Your task to perform on an android device: Open location settings Image 0: 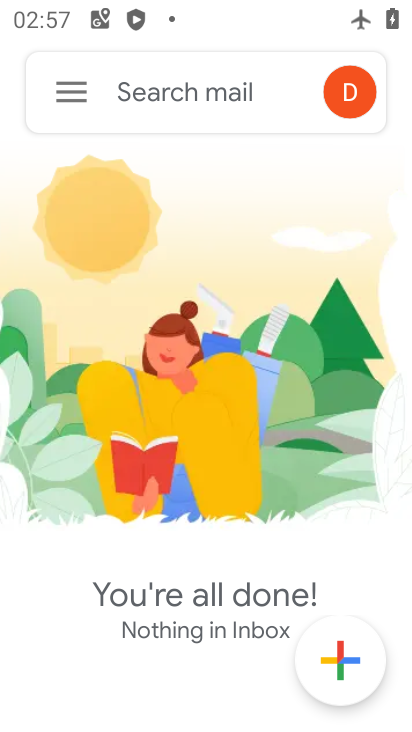
Step 0: press home button
Your task to perform on an android device: Open location settings Image 1: 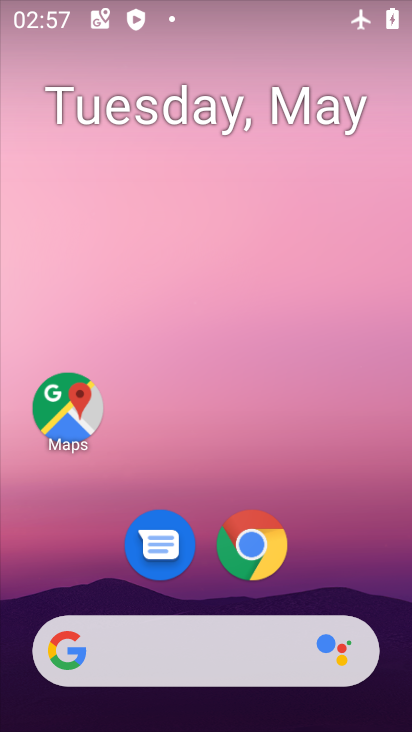
Step 1: drag from (395, 618) to (339, 202)
Your task to perform on an android device: Open location settings Image 2: 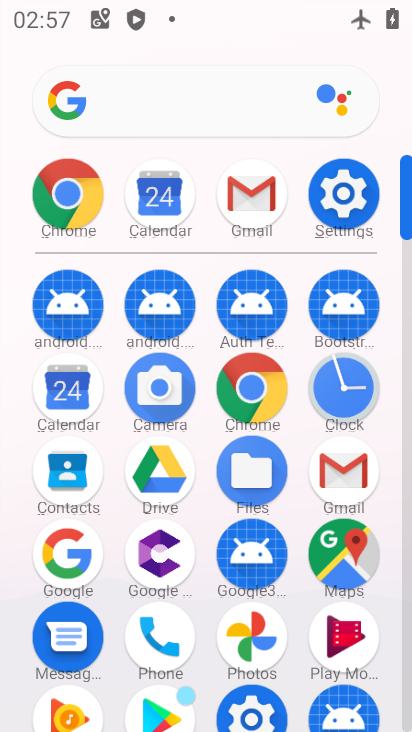
Step 2: click (402, 687)
Your task to perform on an android device: Open location settings Image 3: 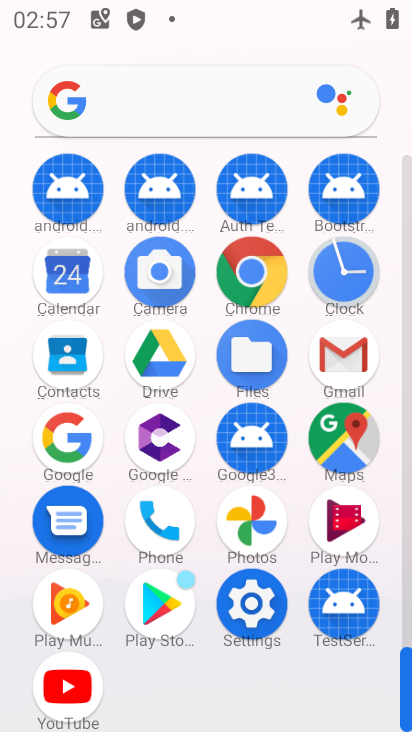
Step 3: click (251, 601)
Your task to perform on an android device: Open location settings Image 4: 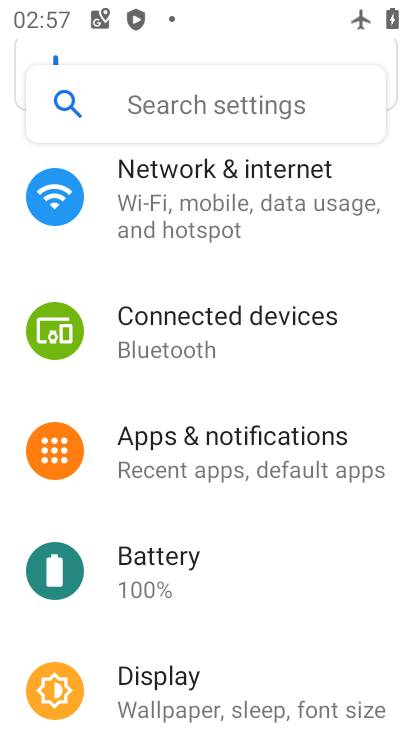
Step 4: drag from (340, 691) to (325, 244)
Your task to perform on an android device: Open location settings Image 5: 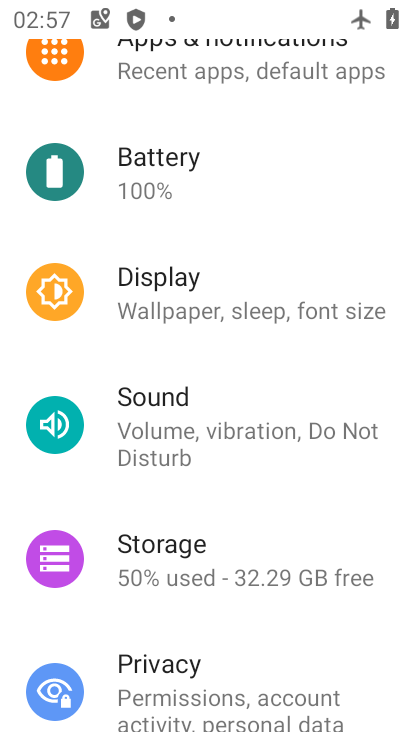
Step 5: drag from (351, 671) to (329, 396)
Your task to perform on an android device: Open location settings Image 6: 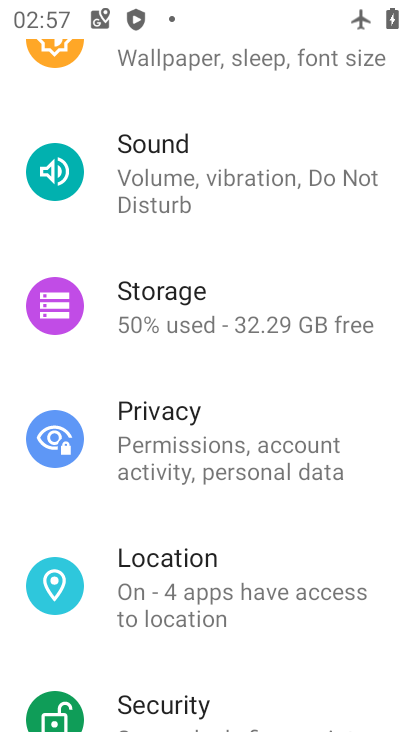
Step 6: click (171, 585)
Your task to perform on an android device: Open location settings Image 7: 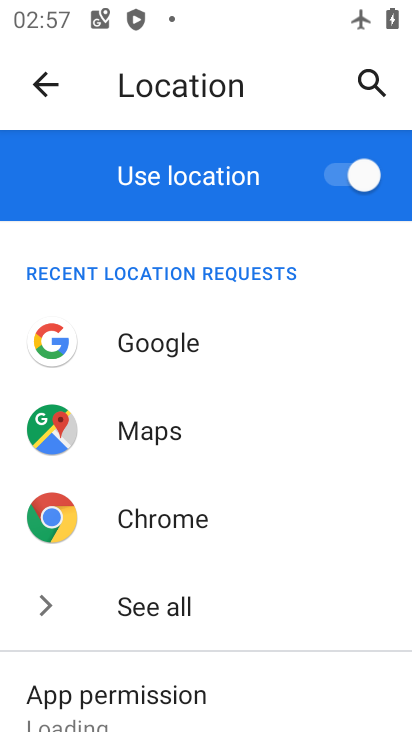
Step 7: drag from (262, 657) to (252, 449)
Your task to perform on an android device: Open location settings Image 8: 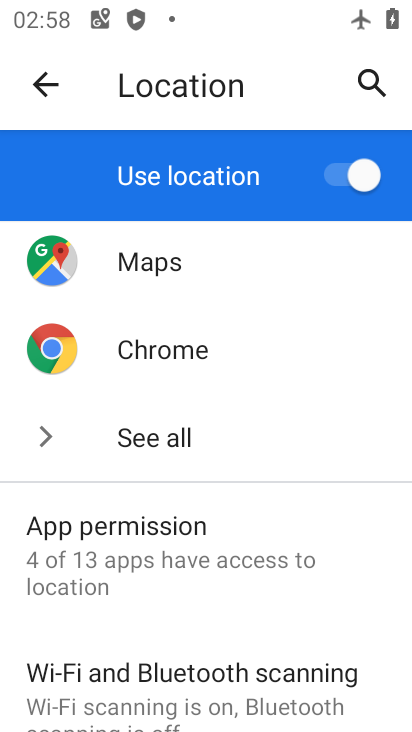
Step 8: drag from (245, 648) to (246, 262)
Your task to perform on an android device: Open location settings Image 9: 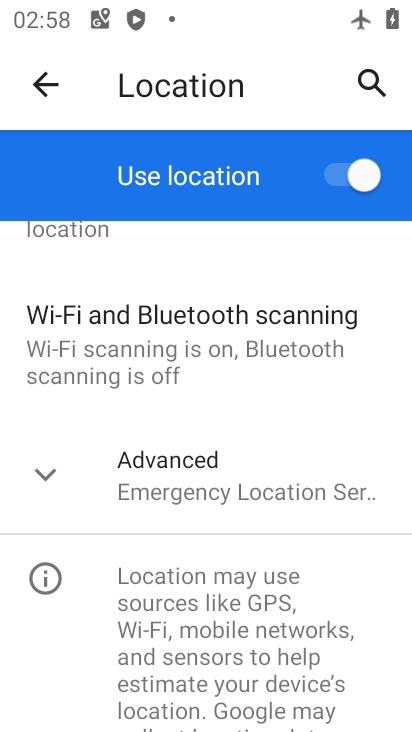
Step 9: click (37, 470)
Your task to perform on an android device: Open location settings Image 10: 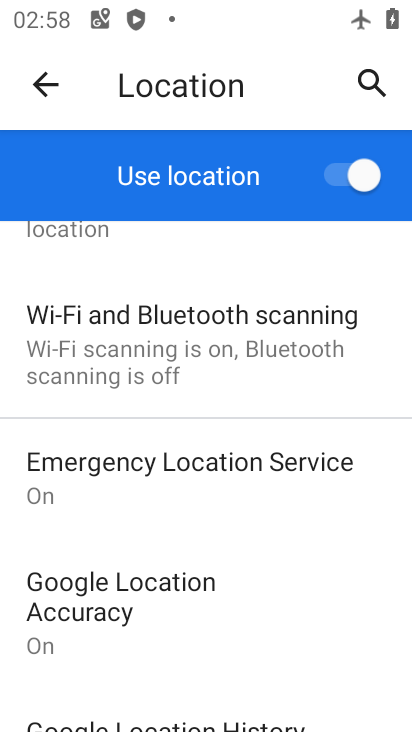
Step 10: task complete